Your task to perform on an android device: Open maps Image 0: 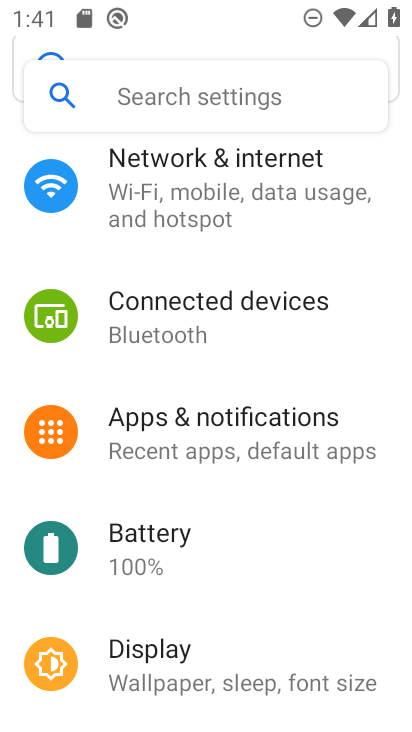
Step 0: press home button
Your task to perform on an android device: Open maps Image 1: 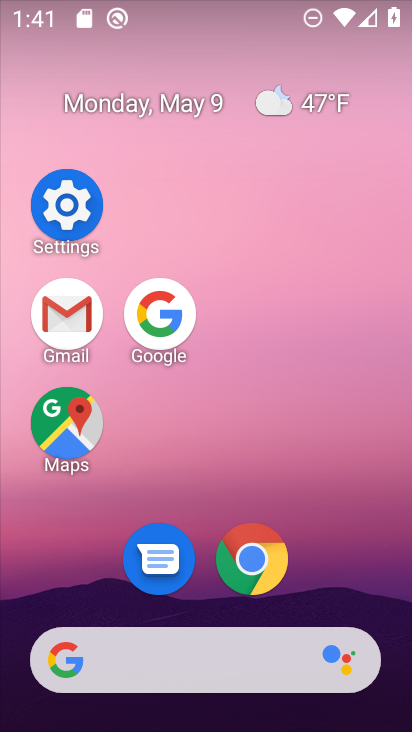
Step 1: click (81, 426)
Your task to perform on an android device: Open maps Image 2: 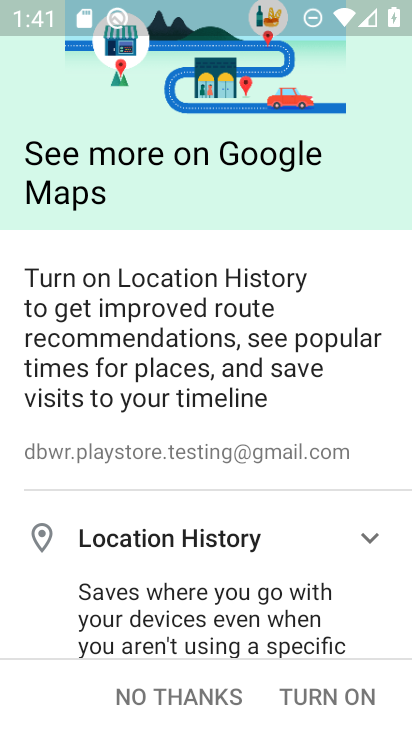
Step 2: press home button
Your task to perform on an android device: Open maps Image 3: 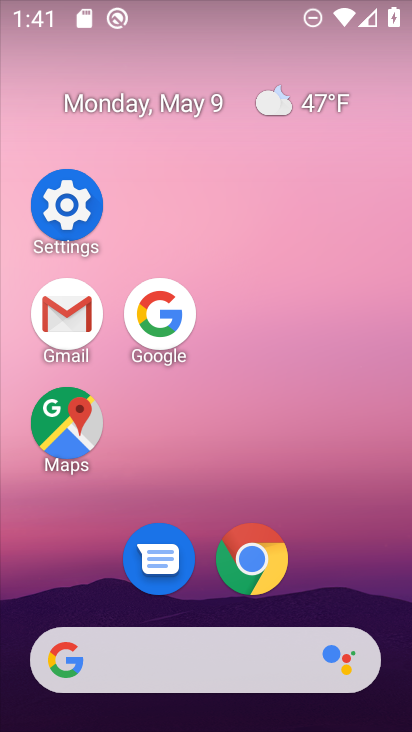
Step 3: click (92, 417)
Your task to perform on an android device: Open maps Image 4: 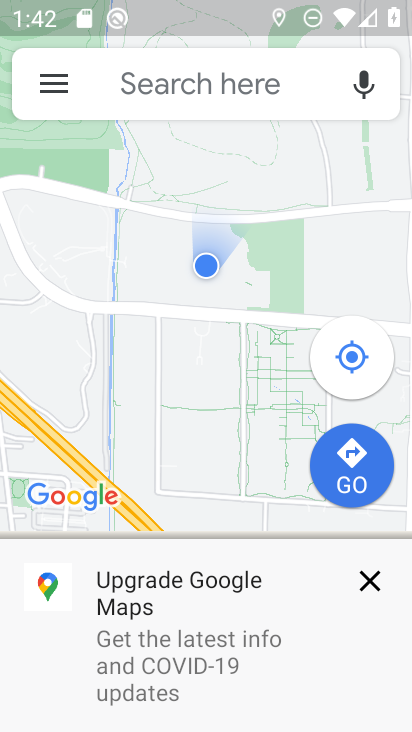
Step 4: task complete